Your task to perform on an android device: Open Google Chrome and open the bookmarks view Image 0: 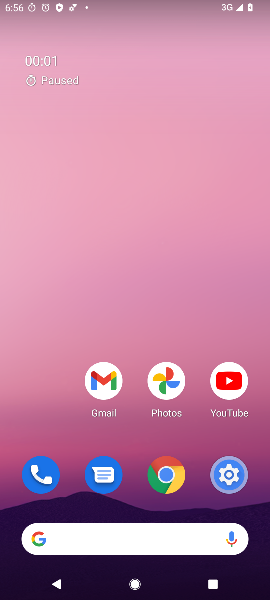
Step 0: drag from (145, 505) to (57, 42)
Your task to perform on an android device: Open Google Chrome and open the bookmarks view Image 1: 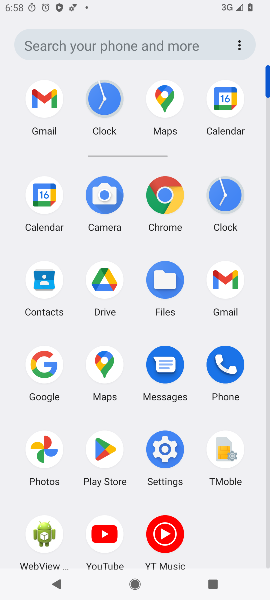
Step 1: click (163, 207)
Your task to perform on an android device: Open Google Chrome and open the bookmarks view Image 2: 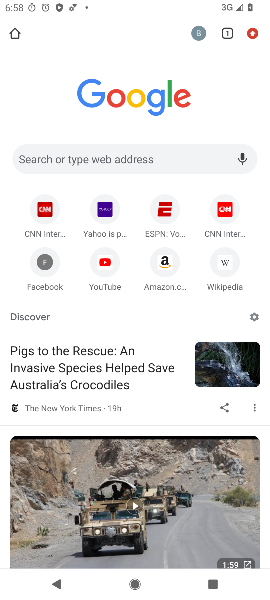
Step 2: click (252, 31)
Your task to perform on an android device: Open Google Chrome and open the bookmarks view Image 3: 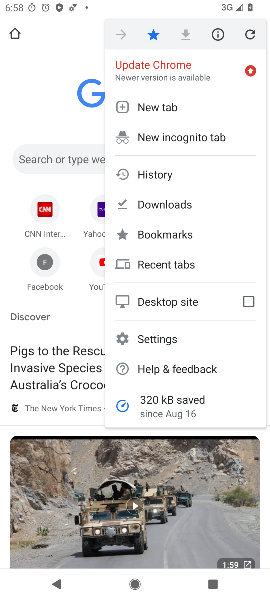
Step 3: click (149, 237)
Your task to perform on an android device: Open Google Chrome and open the bookmarks view Image 4: 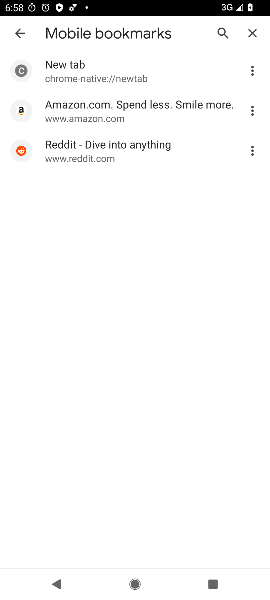
Step 4: task complete